Your task to perform on an android device: open app "NewsBreak: Local News & Alerts" Image 0: 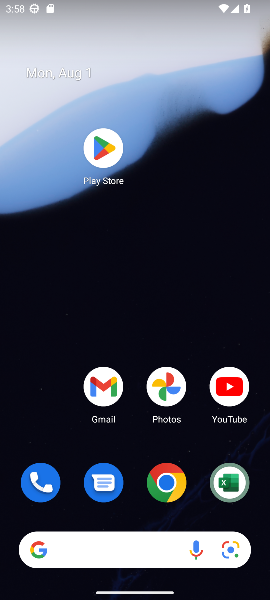
Step 0: press home button
Your task to perform on an android device: open app "NewsBreak: Local News & Alerts" Image 1: 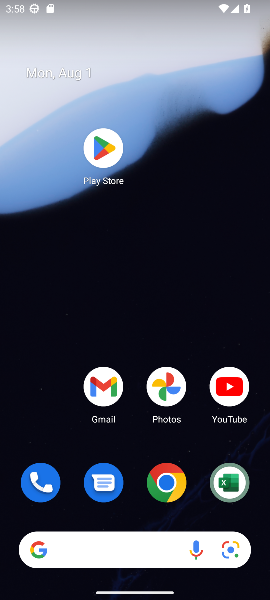
Step 1: click (109, 153)
Your task to perform on an android device: open app "NewsBreak: Local News & Alerts" Image 2: 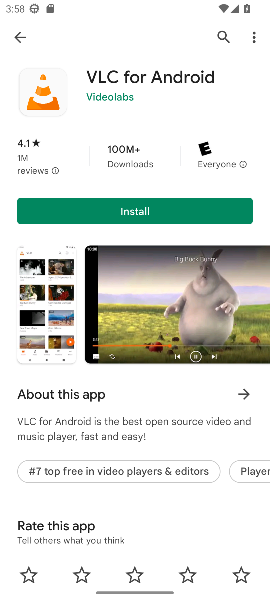
Step 2: click (216, 35)
Your task to perform on an android device: open app "NewsBreak: Local News & Alerts" Image 3: 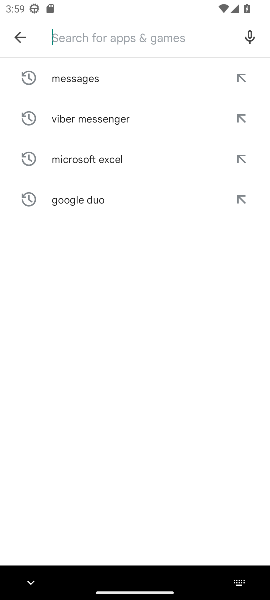
Step 3: type "NewsBreak: Local News & Alerts"
Your task to perform on an android device: open app "NewsBreak: Local News & Alerts" Image 4: 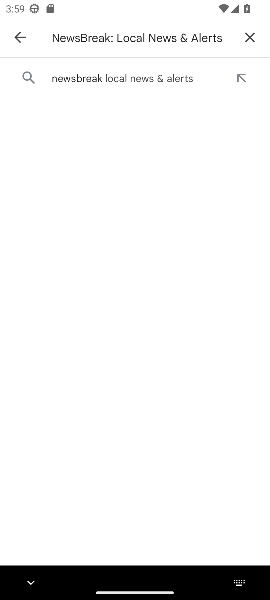
Step 4: click (108, 75)
Your task to perform on an android device: open app "NewsBreak: Local News & Alerts" Image 5: 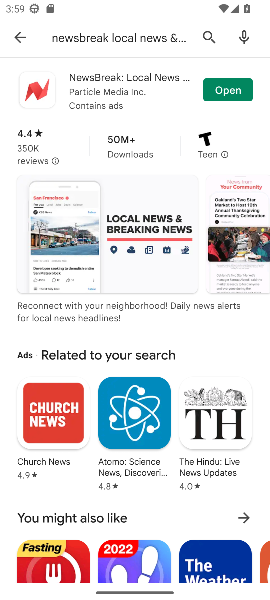
Step 5: click (218, 87)
Your task to perform on an android device: open app "NewsBreak: Local News & Alerts" Image 6: 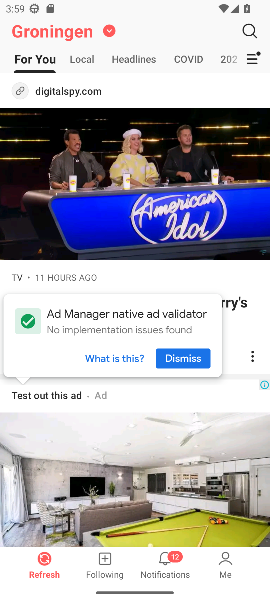
Step 6: task complete